Your task to perform on an android device: manage bookmarks in the chrome app Image 0: 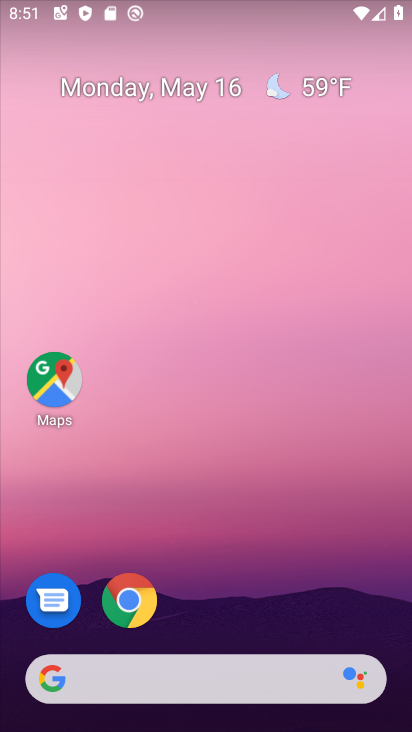
Step 0: click (139, 602)
Your task to perform on an android device: manage bookmarks in the chrome app Image 1: 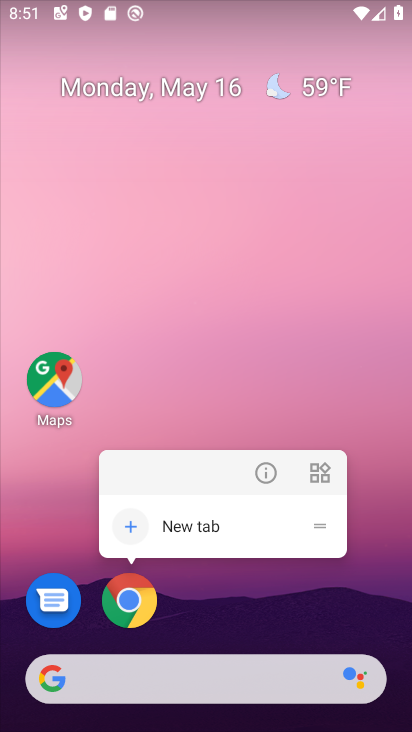
Step 1: click (138, 602)
Your task to perform on an android device: manage bookmarks in the chrome app Image 2: 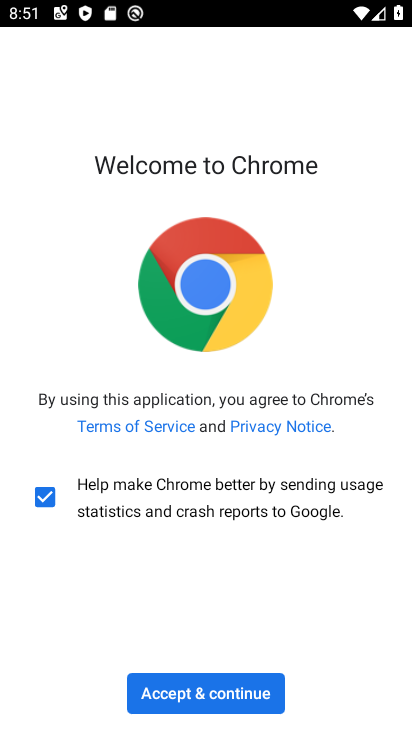
Step 2: click (229, 705)
Your task to perform on an android device: manage bookmarks in the chrome app Image 3: 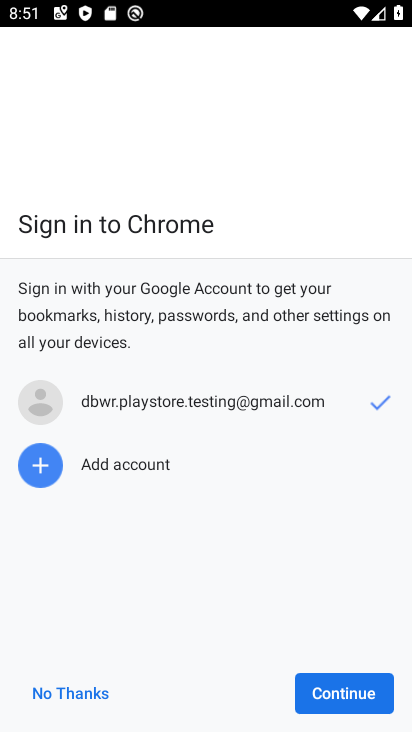
Step 3: click (337, 697)
Your task to perform on an android device: manage bookmarks in the chrome app Image 4: 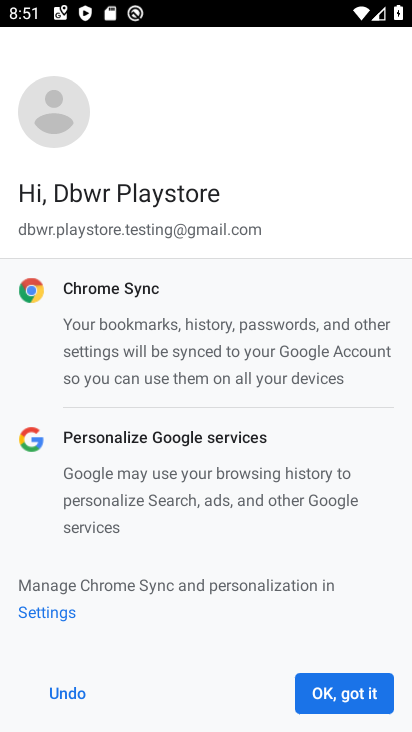
Step 4: click (345, 701)
Your task to perform on an android device: manage bookmarks in the chrome app Image 5: 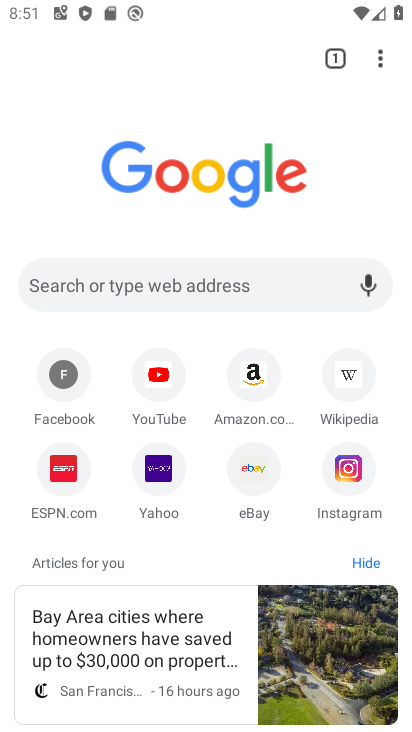
Step 5: click (379, 62)
Your task to perform on an android device: manage bookmarks in the chrome app Image 6: 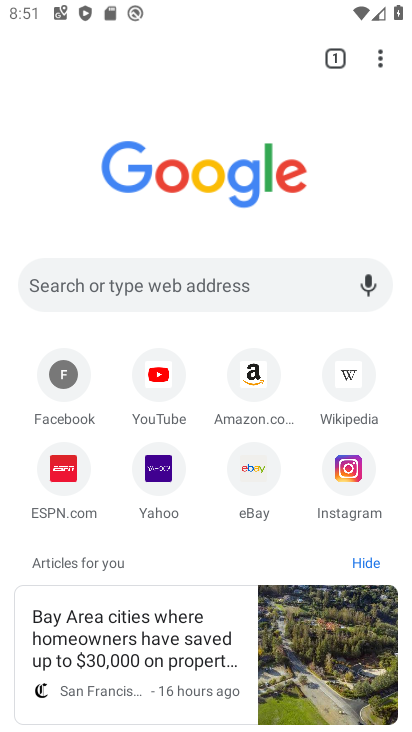
Step 6: click (370, 53)
Your task to perform on an android device: manage bookmarks in the chrome app Image 7: 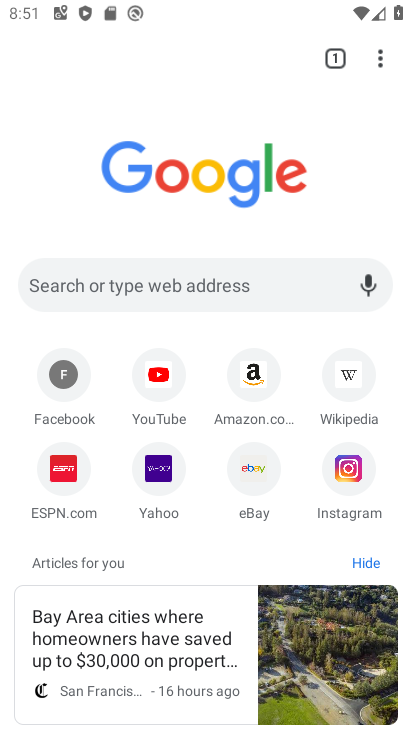
Step 7: click (385, 54)
Your task to perform on an android device: manage bookmarks in the chrome app Image 8: 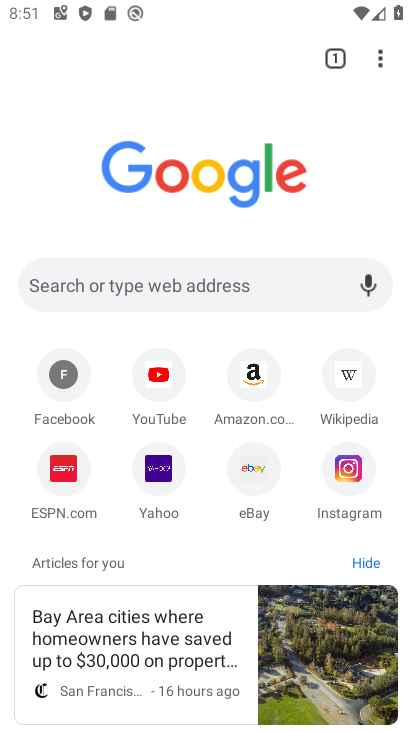
Step 8: click (385, 54)
Your task to perform on an android device: manage bookmarks in the chrome app Image 9: 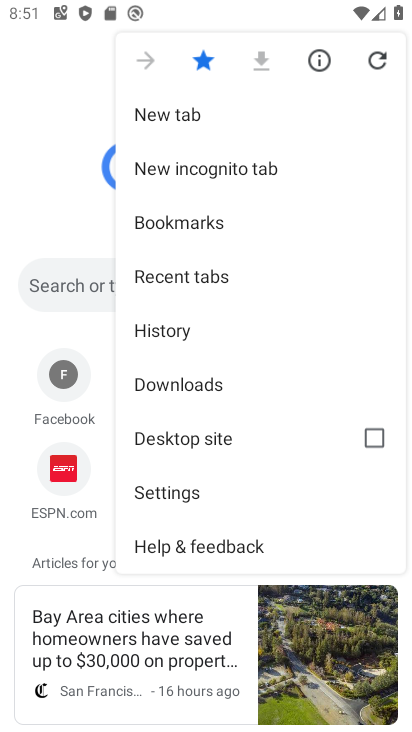
Step 9: click (178, 221)
Your task to perform on an android device: manage bookmarks in the chrome app Image 10: 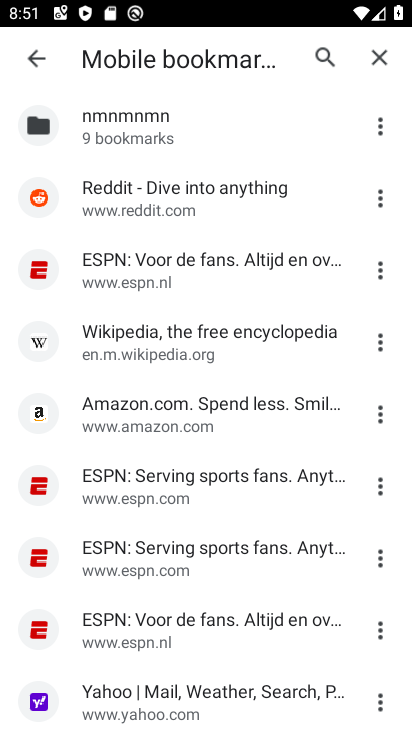
Step 10: click (94, 485)
Your task to perform on an android device: manage bookmarks in the chrome app Image 11: 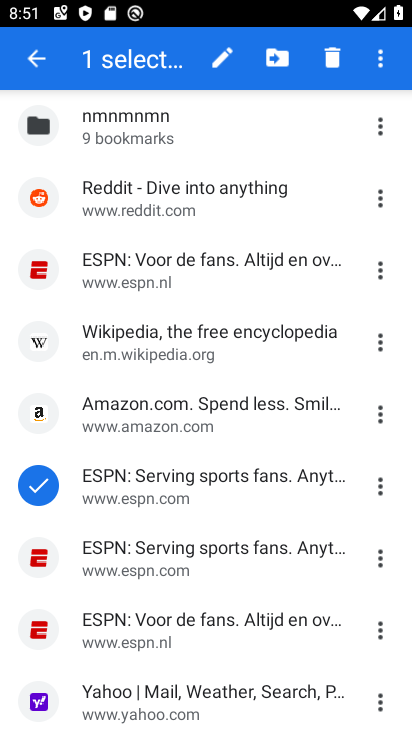
Step 11: click (339, 52)
Your task to perform on an android device: manage bookmarks in the chrome app Image 12: 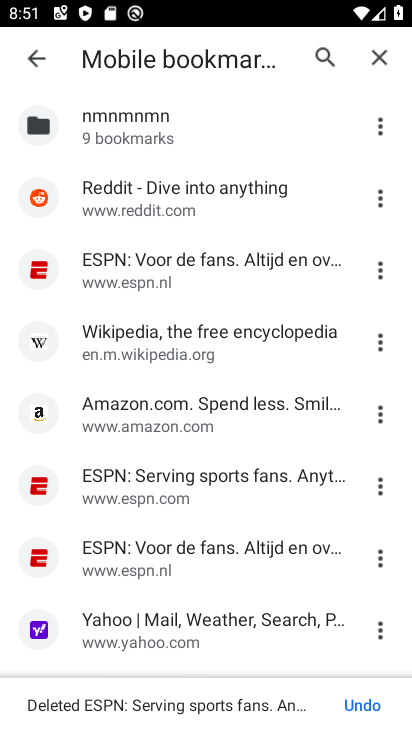
Step 12: click (112, 559)
Your task to perform on an android device: manage bookmarks in the chrome app Image 13: 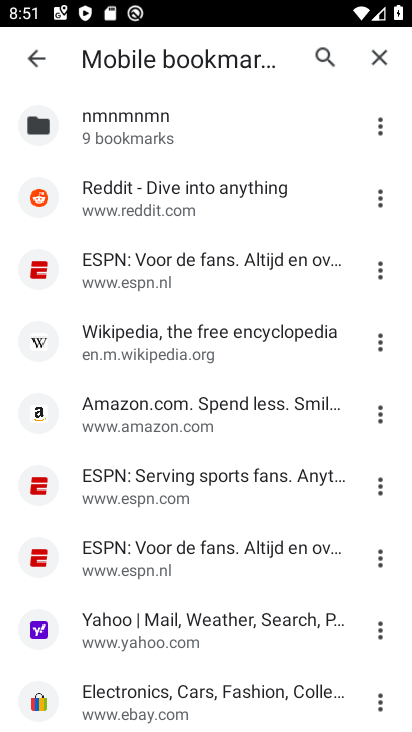
Step 13: click (149, 496)
Your task to perform on an android device: manage bookmarks in the chrome app Image 14: 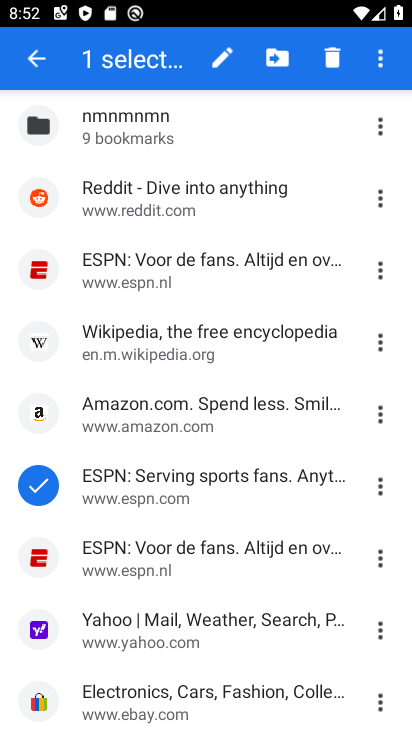
Step 14: click (332, 66)
Your task to perform on an android device: manage bookmarks in the chrome app Image 15: 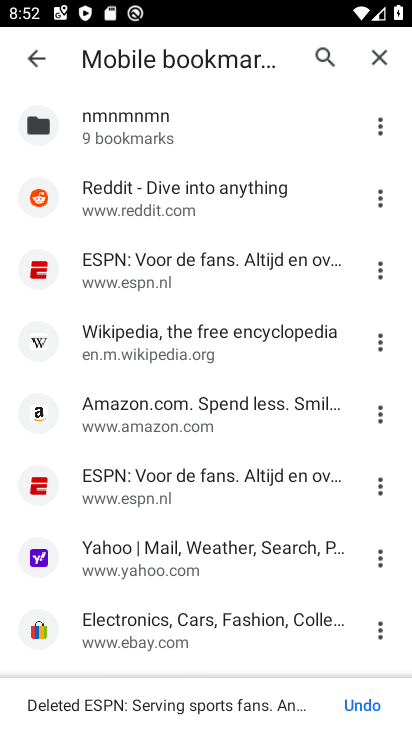
Step 15: task complete